Your task to perform on an android device: turn off picture-in-picture Image 0: 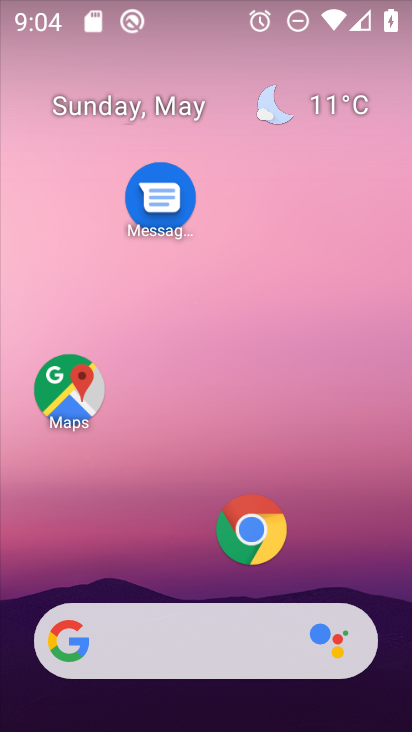
Step 0: click (251, 527)
Your task to perform on an android device: turn off picture-in-picture Image 1: 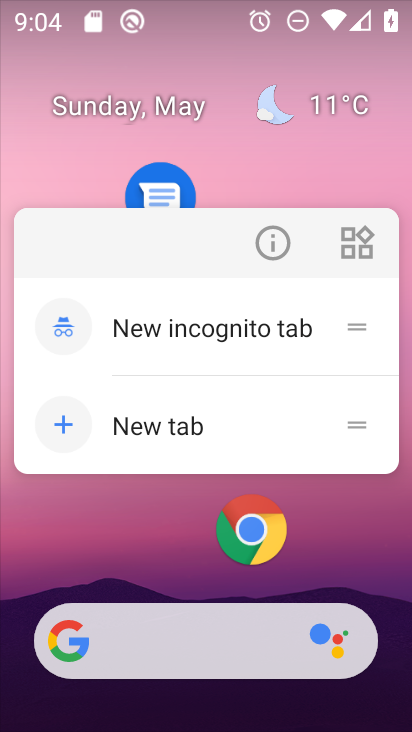
Step 1: click (267, 243)
Your task to perform on an android device: turn off picture-in-picture Image 2: 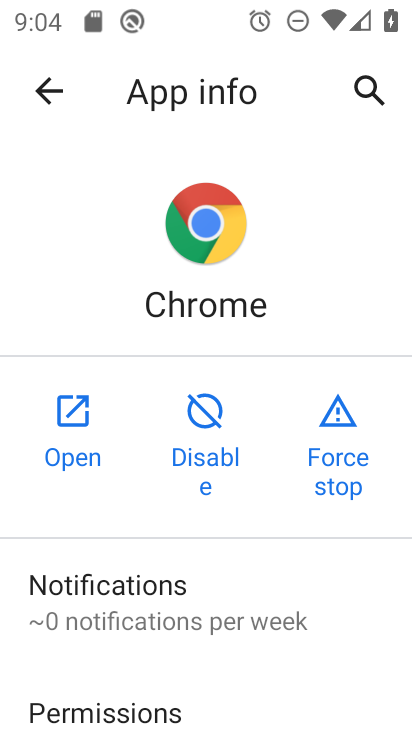
Step 2: drag from (204, 666) to (257, 133)
Your task to perform on an android device: turn off picture-in-picture Image 3: 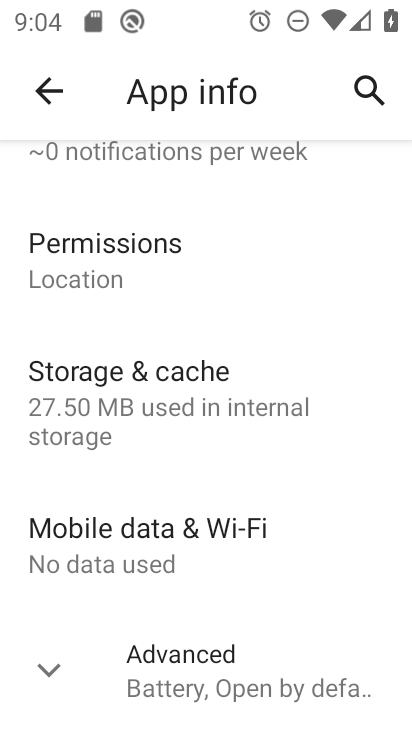
Step 3: click (57, 664)
Your task to perform on an android device: turn off picture-in-picture Image 4: 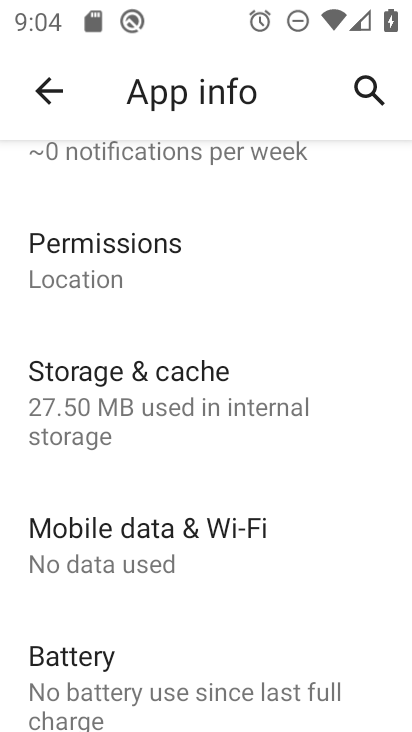
Step 4: drag from (205, 669) to (237, 266)
Your task to perform on an android device: turn off picture-in-picture Image 5: 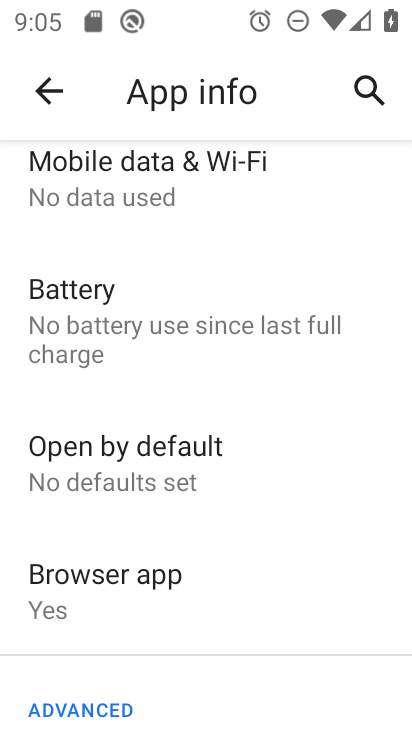
Step 5: drag from (156, 652) to (196, 151)
Your task to perform on an android device: turn off picture-in-picture Image 6: 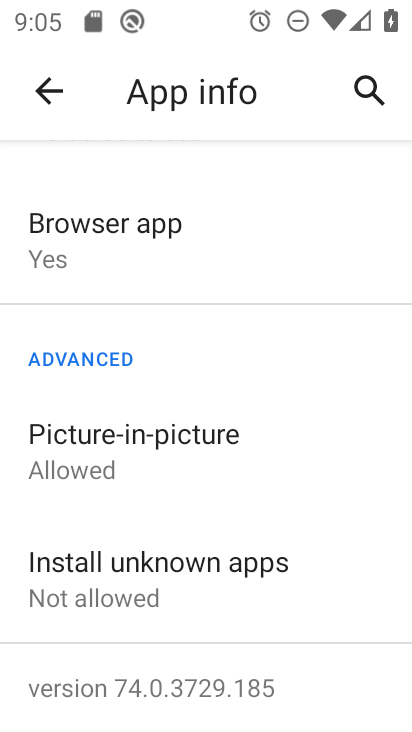
Step 6: click (154, 468)
Your task to perform on an android device: turn off picture-in-picture Image 7: 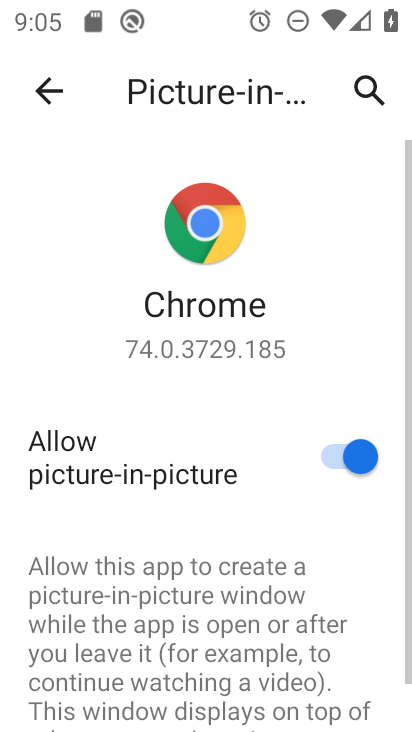
Step 7: click (330, 449)
Your task to perform on an android device: turn off picture-in-picture Image 8: 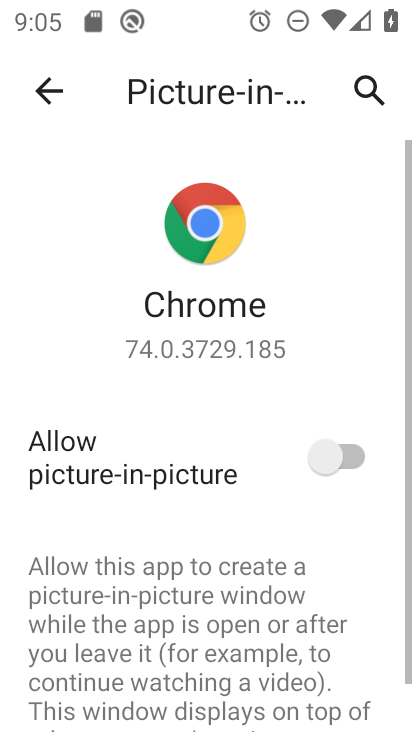
Step 8: task complete